Your task to perform on an android device: Go to privacy settings Image 0: 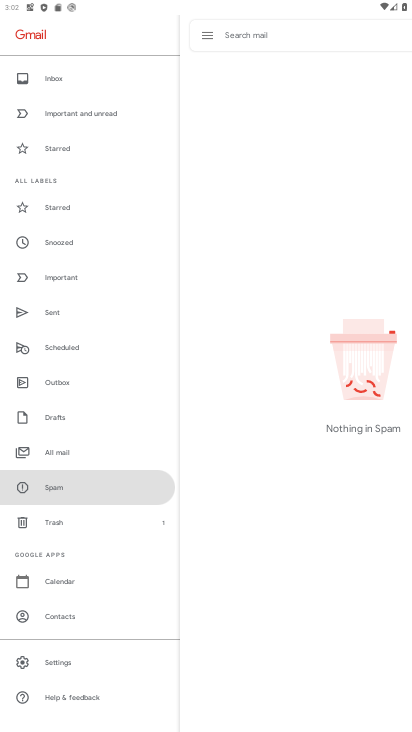
Step 0: press home button
Your task to perform on an android device: Go to privacy settings Image 1: 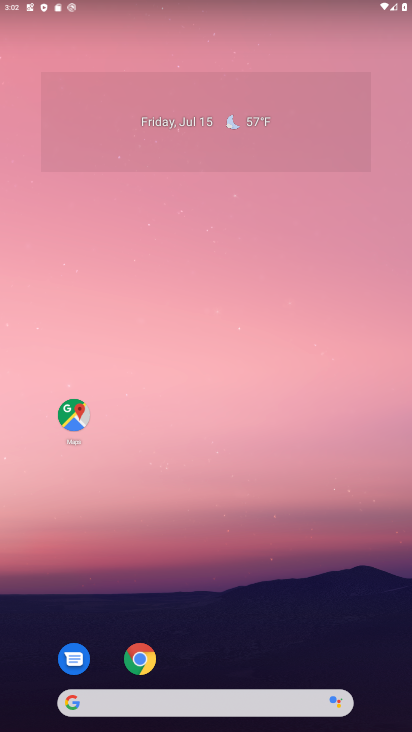
Step 1: drag from (209, 620) to (16, 0)
Your task to perform on an android device: Go to privacy settings Image 2: 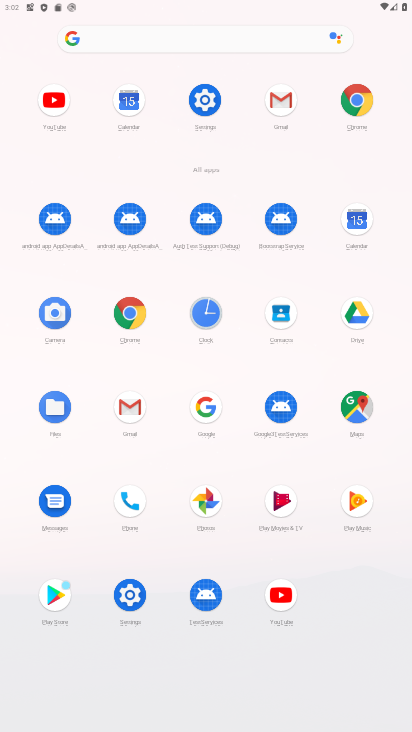
Step 2: click (211, 115)
Your task to perform on an android device: Go to privacy settings Image 3: 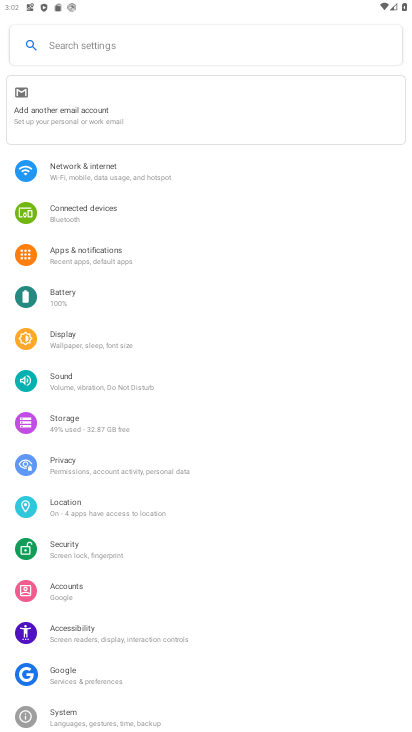
Step 3: click (96, 468)
Your task to perform on an android device: Go to privacy settings Image 4: 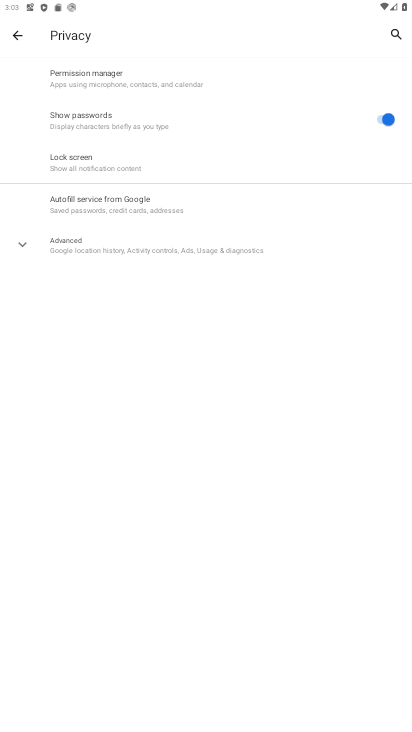
Step 4: task complete